Your task to perform on an android device: turn on bluetooth scan Image 0: 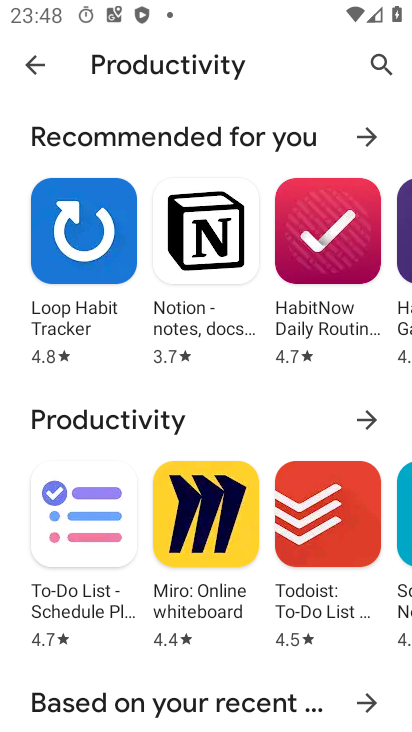
Step 0: press home button
Your task to perform on an android device: turn on bluetooth scan Image 1: 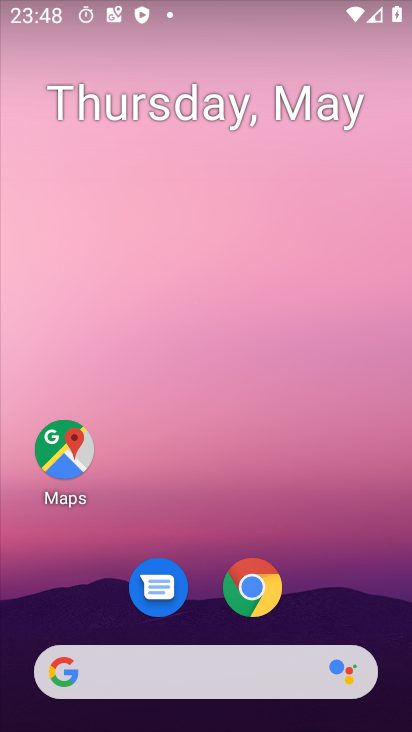
Step 1: drag from (366, 658) to (319, 16)
Your task to perform on an android device: turn on bluetooth scan Image 2: 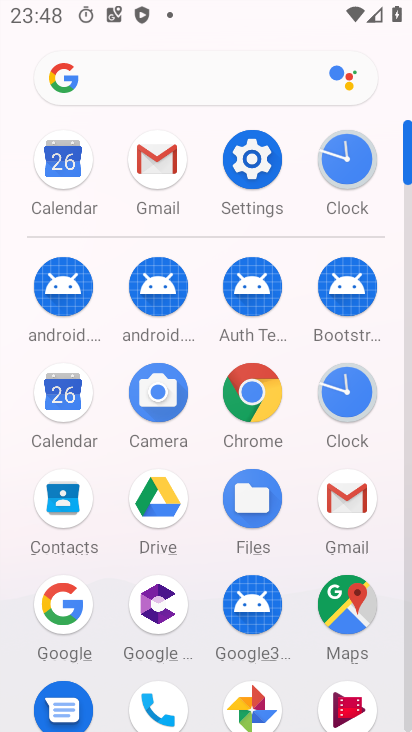
Step 2: click (253, 157)
Your task to perform on an android device: turn on bluetooth scan Image 3: 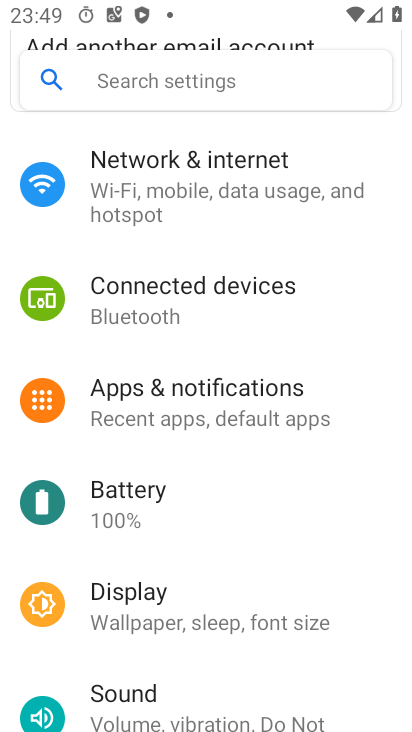
Step 3: drag from (317, 596) to (316, 155)
Your task to perform on an android device: turn on bluetooth scan Image 4: 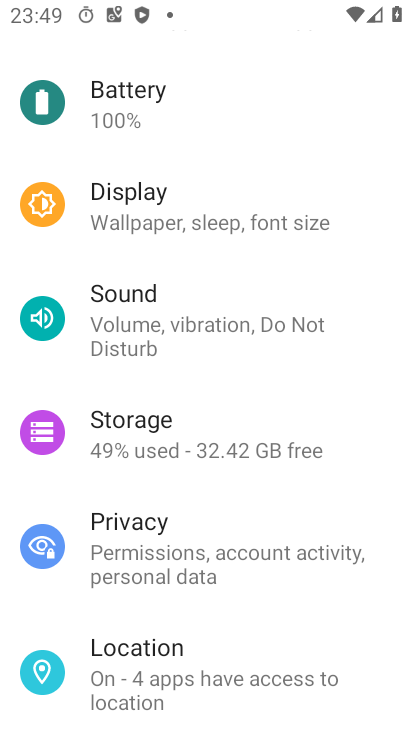
Step 4: click (168, 665)
Your task to perform on an android device: turn on bluetooth scan Image 5: 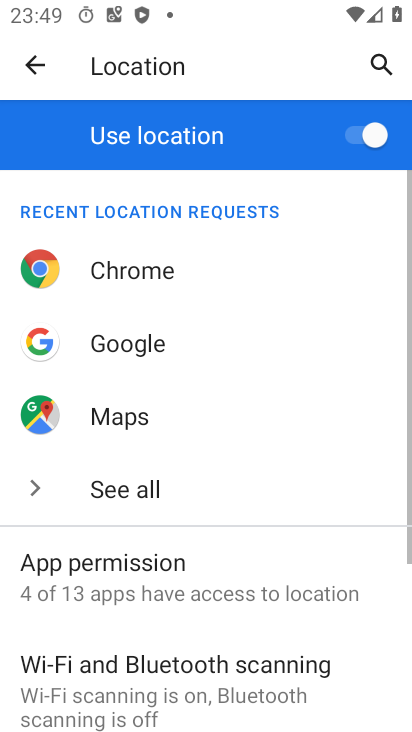
Step 5: drag from (220, 569) to (235, 253)
Your task to perform on an android device: turn on bluetooth scan Image 6: 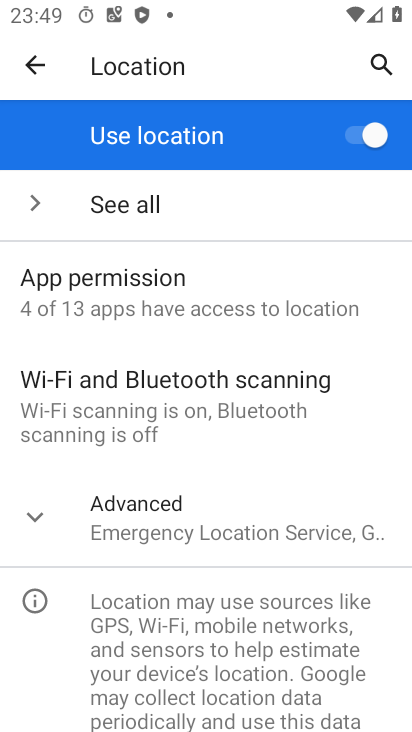
Step 6: click (133, 410)
Your task to perform on an android device: turn on bluetooth scan Image 7: 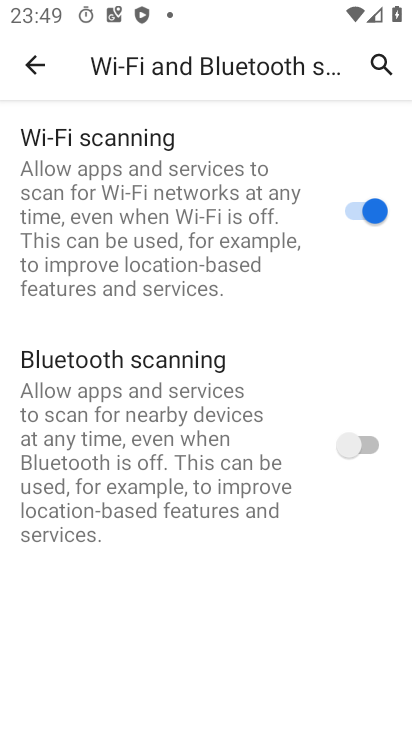
Step 7: click (355, 453)
Your task to perform on an android device: turn on bluetooth scan Image 8: 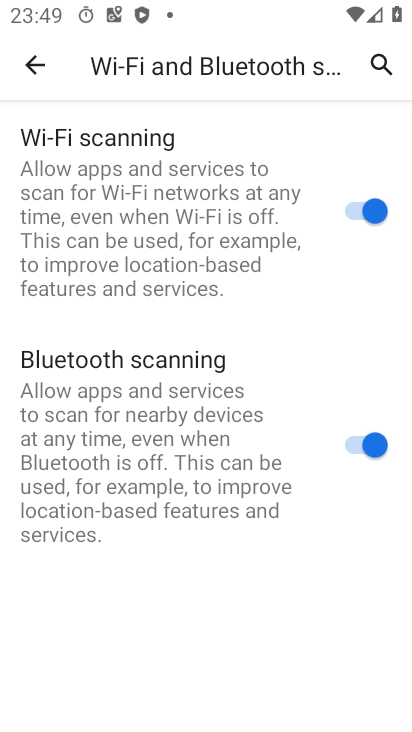
Step 8: task complete